Your task to perform on an android device: Go to wifi settings Image 0: 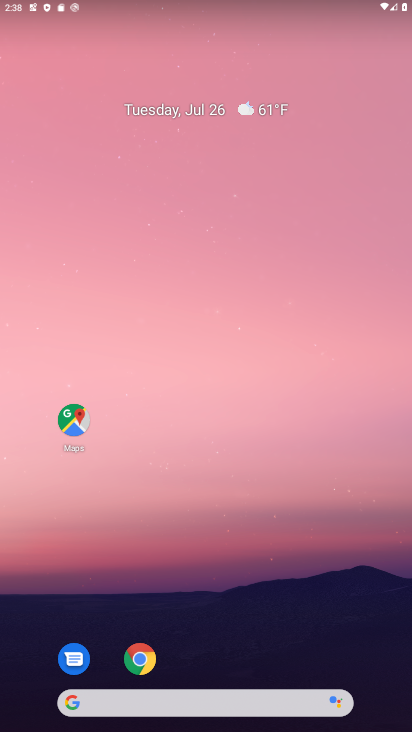
Step 0: drag from (180, 654) to (212, 250)
Your task to perform on an android device: Go to wifi settings Image 1: 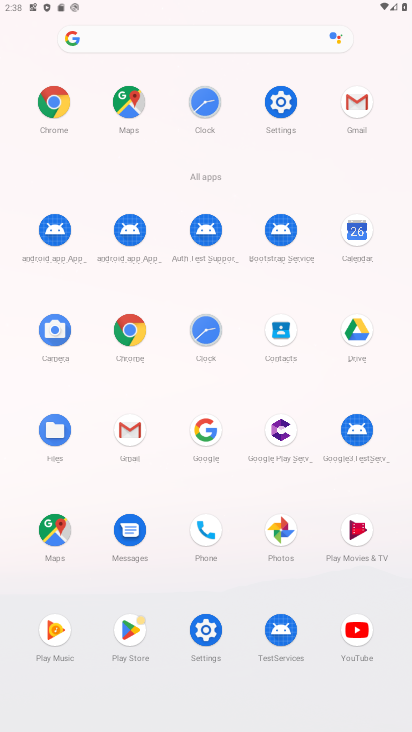
Step 1: click (283, 96)
Your task to perform on an android device: Go to wifi settings Image 2: 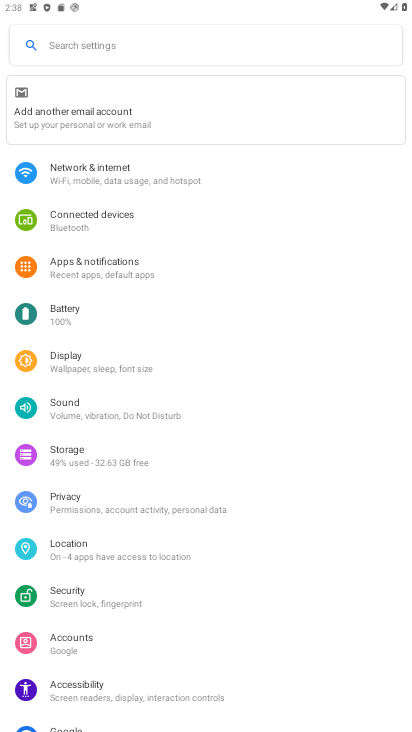
Step 2: click (101, 171)
Your task to perform on an android device: Go to wifi settings Image 3: 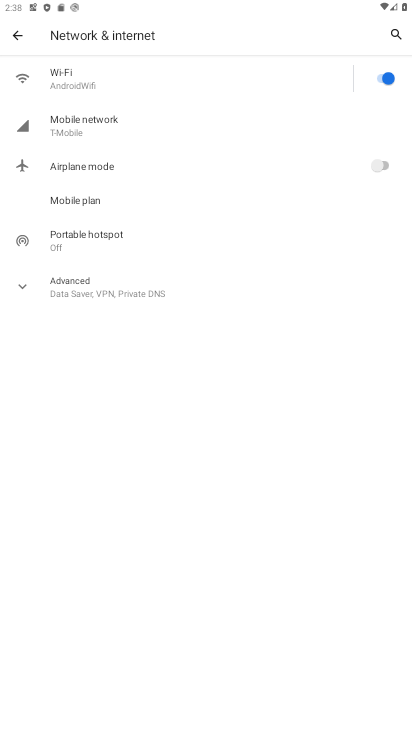
Step 3: click (154, 79)
Your task to perform on an android device: Go to wifi settings Image 4: 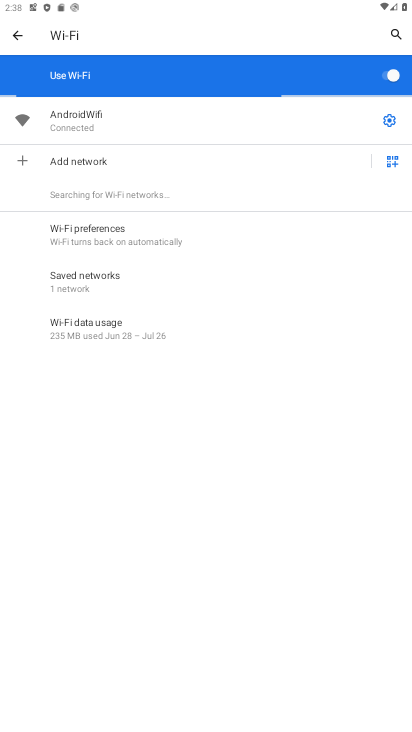
Step 4: task complete